Your task to perform on an android device: check storage Image 0: 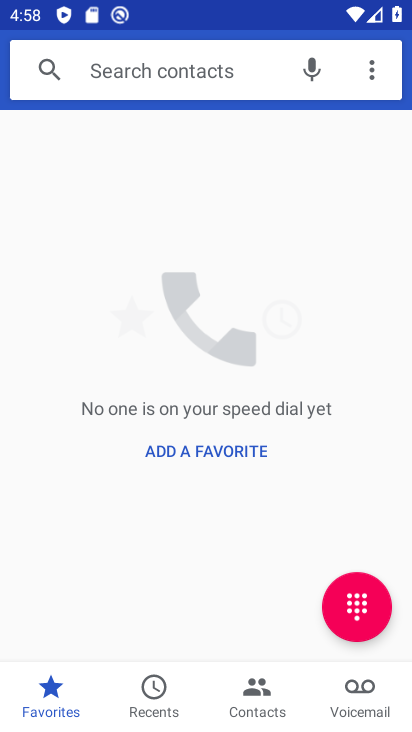
Step 0: drag from (247, 720) to (227, 203)
Your task to perform on an android device: check storage Image 1: 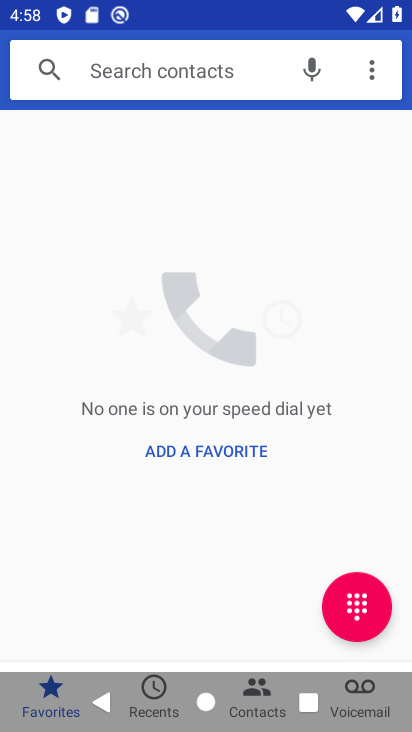
Step 1: press home button
Your task to perform on an android device: check storage Image 2: 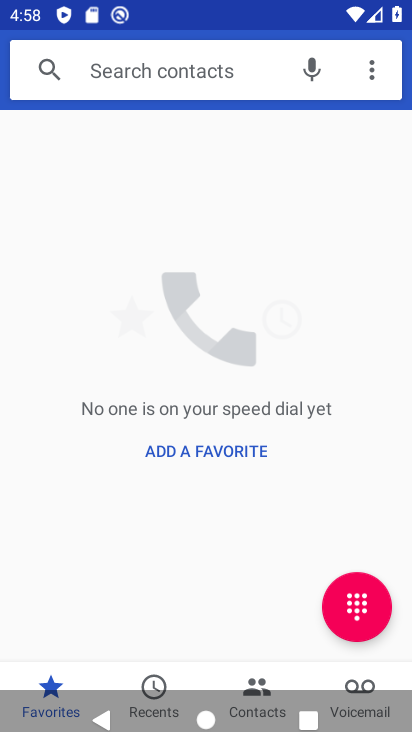
Step 2: press home button
Your task to perform on an android device: check storage Image 3: 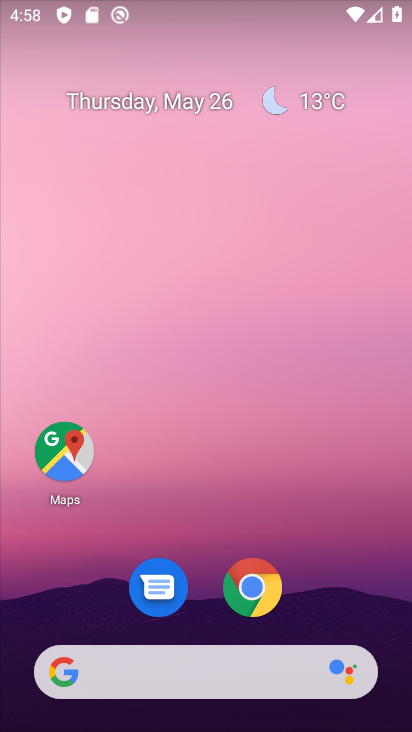
Step 3: drag from (193, 712) to (194, 44)
Your task to perform on an android device: check storage Image 4: 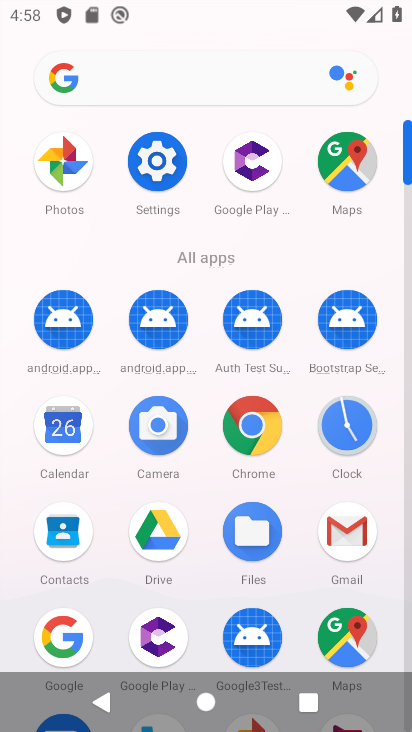
Step 4: click (151, 163)
Your task to perform on an android device: check storage Image 5: 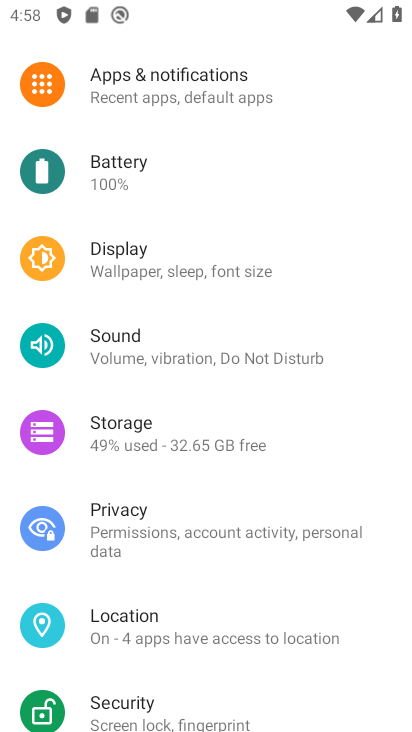
Step 5: click (137, 437)
Your task to perform on an android device: check storage Image 6: 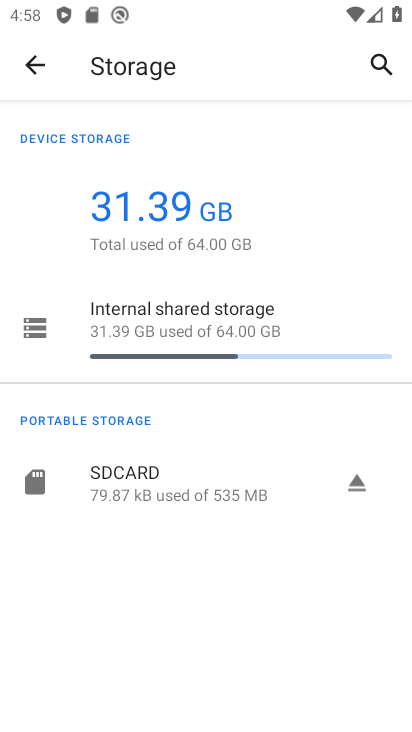
Step 6: task complete